Your task to perform on an android device: Go to calendar. Show me events next week Image 0: 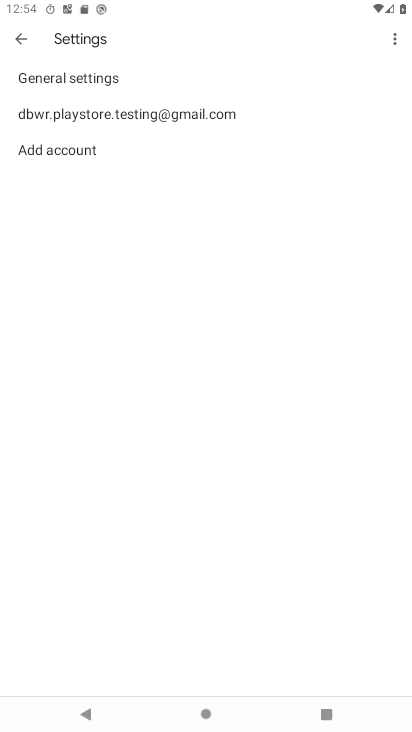
Step 0: press home button
Your task to perform on an android device: Go to calendar. Show me events next week Image 1: 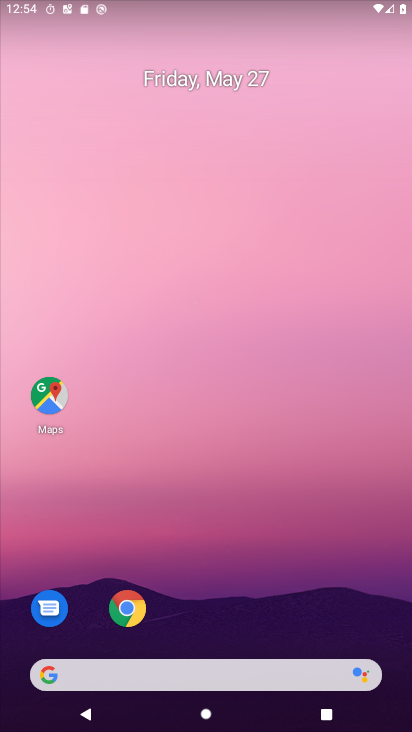
Step 1: drag from (364, 423) to (335, 203)
Your task to perform on an android device: Go to calendar. Show me events next week Image 2: 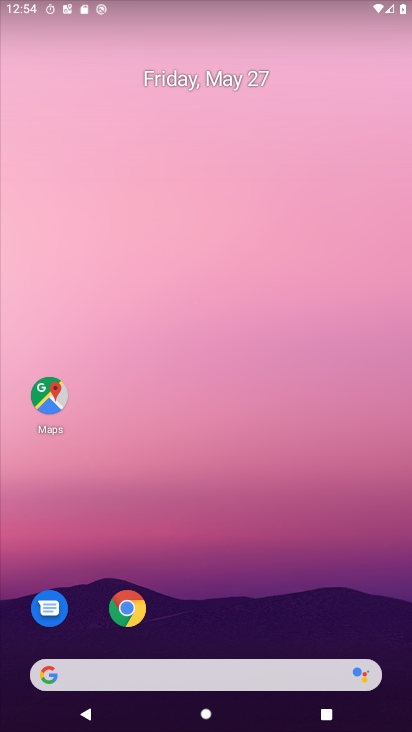
Step 2: drag from (400, 686) to (308, 86)
Your task to perform on an android device: Go to calendar. Show me events next week Image 3: 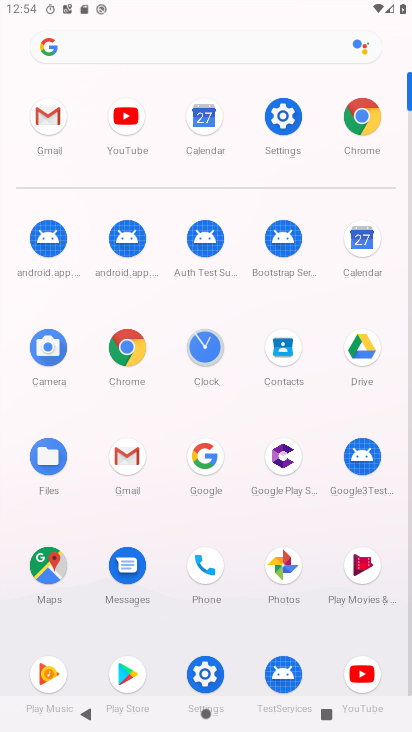
Step 3: click (354, 244)
Your task to perform on an android device: Go to calendar. Show me events next week Image 4: 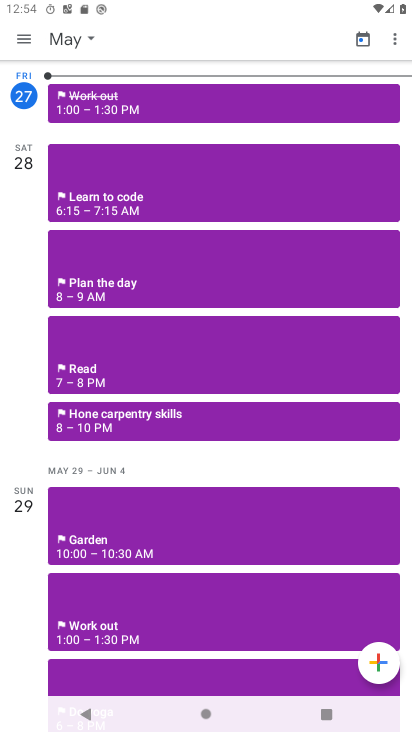
Step 4: click (25, 37)
Your task to perform on an android device: Go to calendar. Show me events next week Image 5: 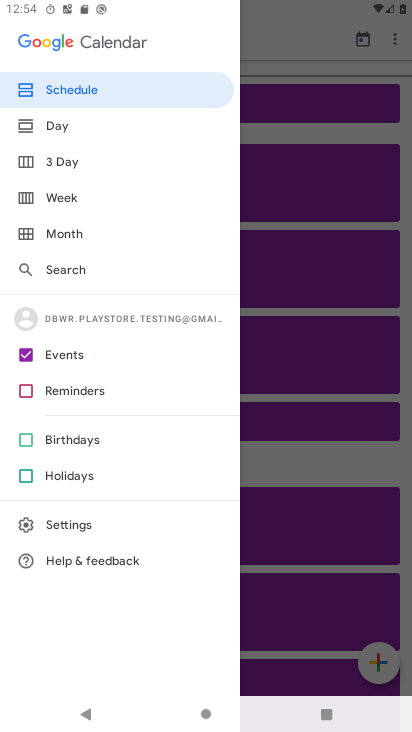
Step 5: click (58, 193)
Your task to perform on an android device: Go to calendar. Show me events next week Image 6: 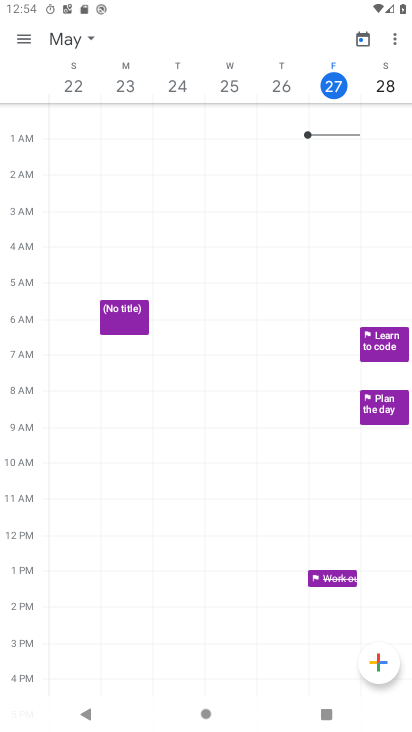
Step 6: task complete